Your task to perform on an android device: turn on showing notifications on the lock screen Image 0: 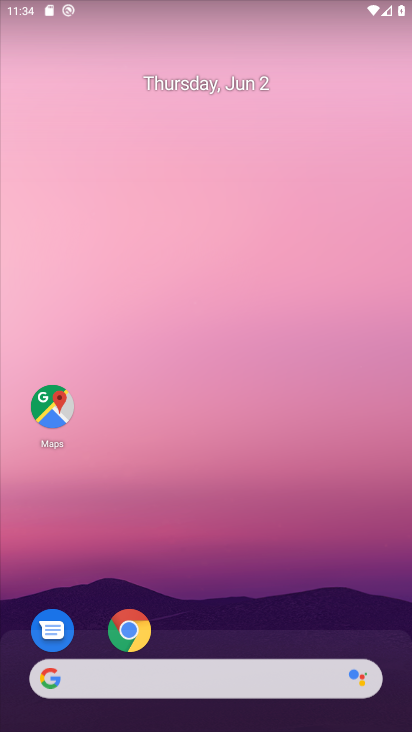
Step 0: drag from (182, 641) to (290, 15)
Your task to perform on an android device: turn on showing notifications on the lock screen Image 1: 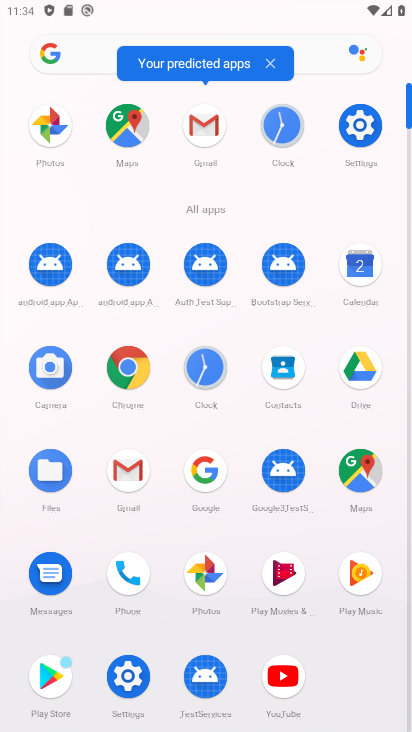
Step 1: click (131, 682)
Your task to perform on an android device: turn on showing notifications on the lock screen Image 2: 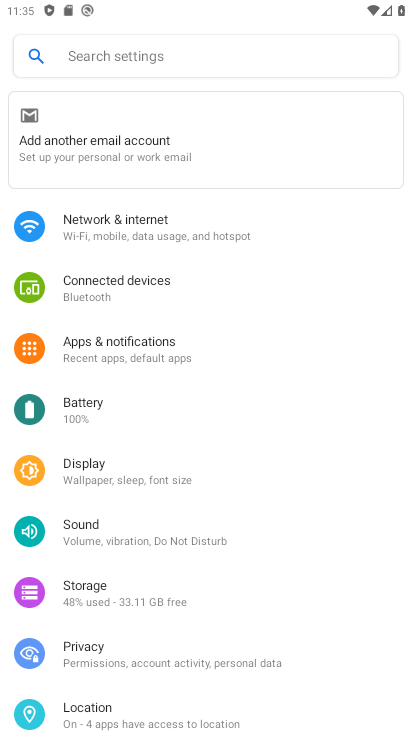
Step 2: click (182, 334)
Your task to perform on an android device: turn on showing notifications on the lock screen Image 3: 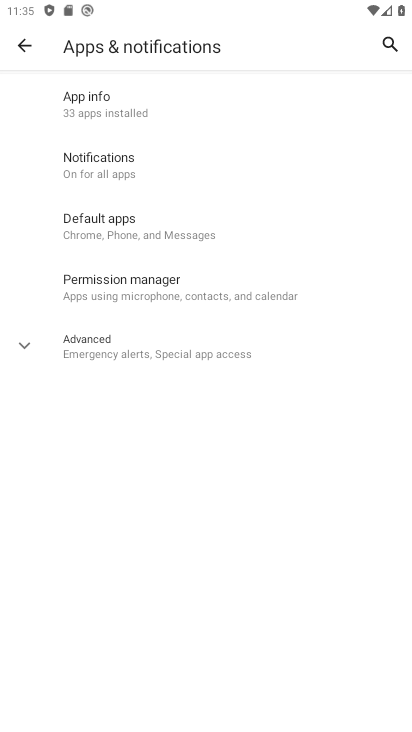
Step 3: click (169, 161)
Your task to perform on an android device: turn on showing notifications on the lock screen Image 4: 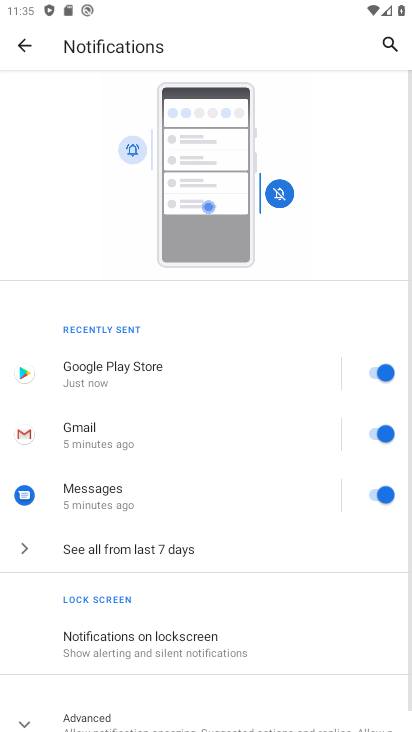
Step 4: drag from (228, 636) to (274, 359)
Your task to perform on an android device: turn on showing notifications on the lock screen Image 5: 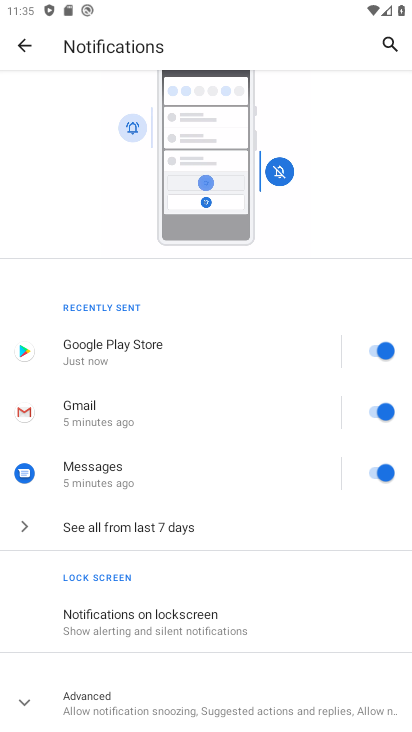
Step 5: click (173, 622)
Your task to perform on an android device: turn on showing notifications on the lock screen Image 6: 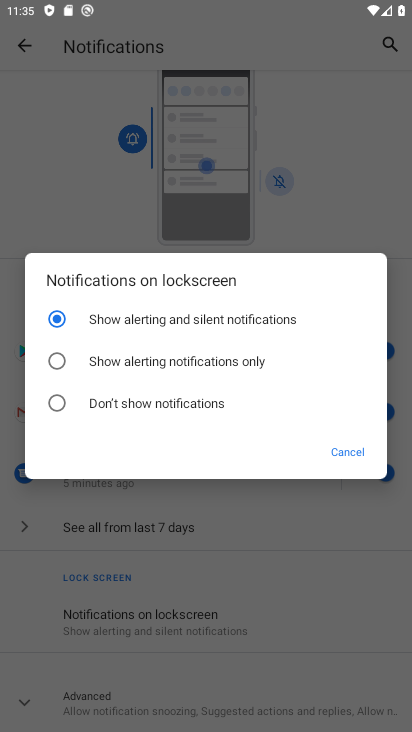
Step 6: task complete